Your task to perform on an android device: Go to settings Image 0: 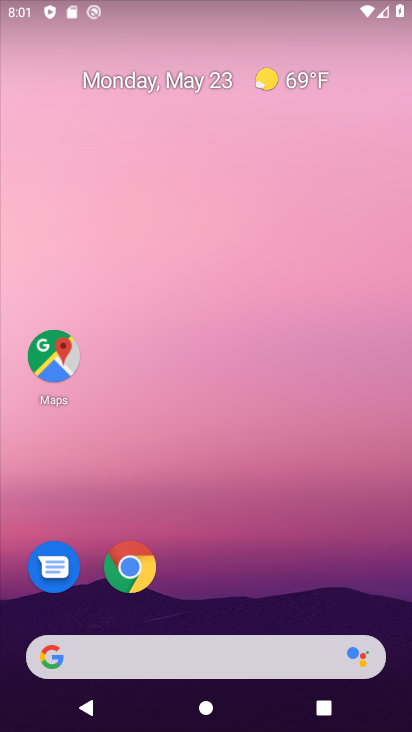
Step 0: drag from (202, 597) to (266, 16)
Your task to perform on an android device: Go to settings Image 1: 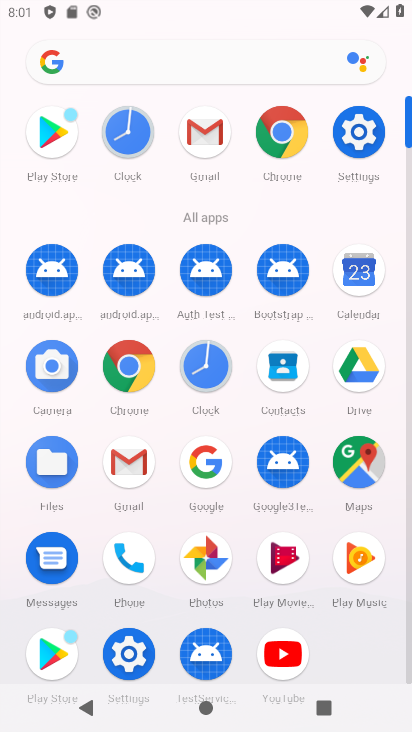
Step 1: click (122, 658)
Your task to perform on an android device: Go to settings Image 2: 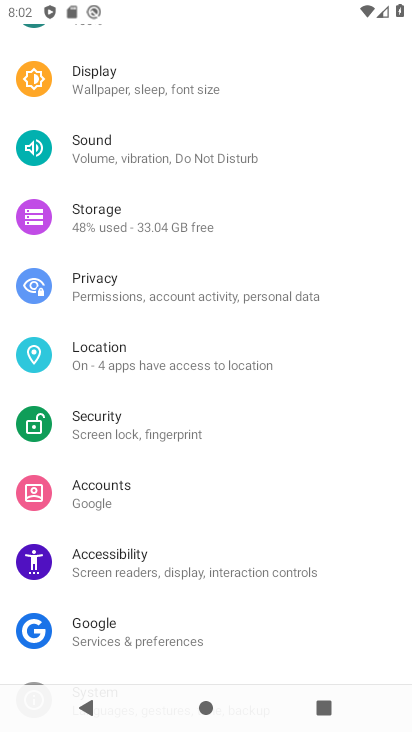
Step 2: task complete